Your task to perform on an android device: toggle airplane mode Image 0: 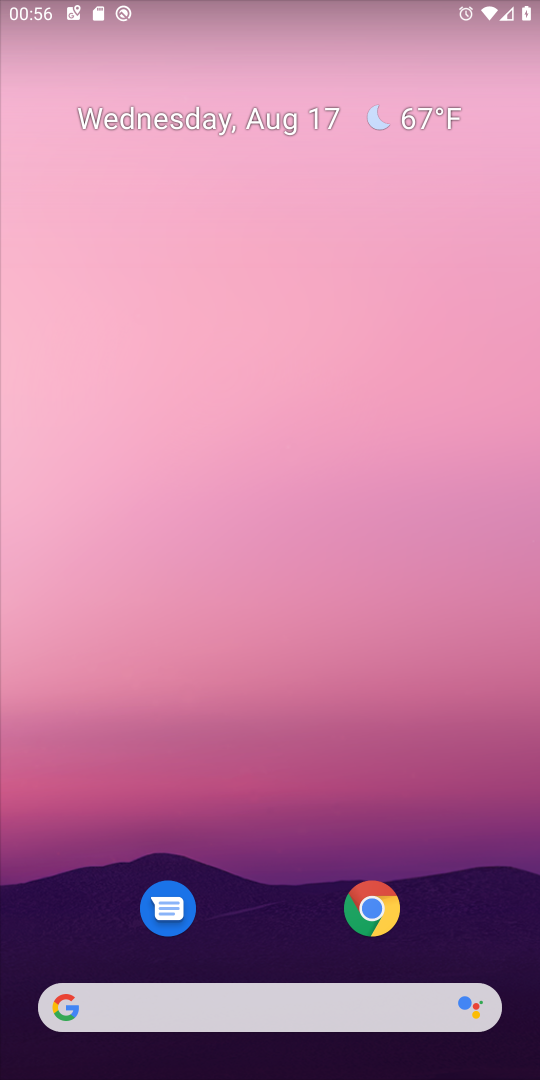
Step 0: drag from (261, 895) to (266, 299)
Your task to perform on an android device: toggle airplane mode Image 1: 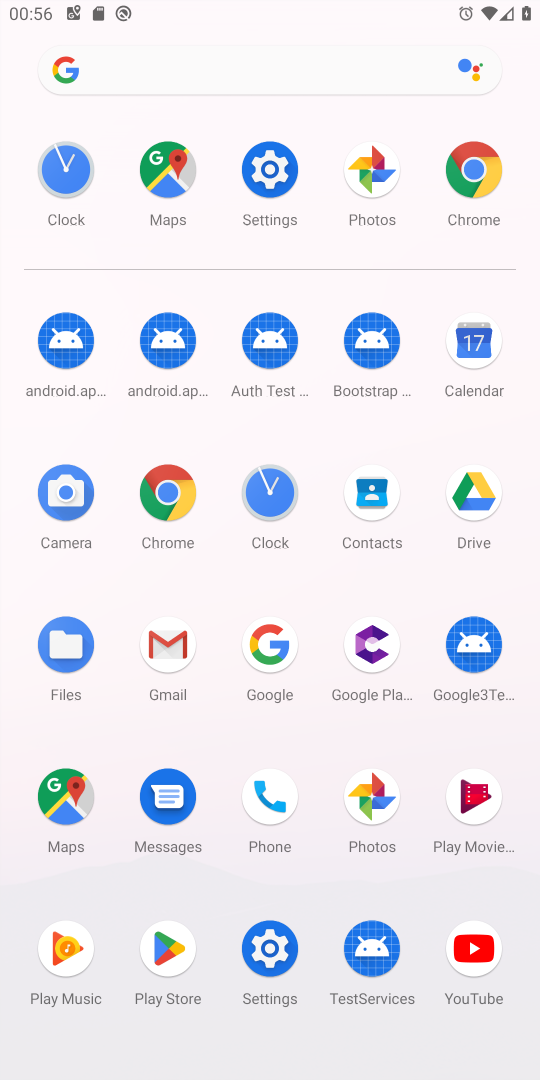
Step 1: click (254, 188)
Your task to perform on an android device: toggle airplane mode Image 2: 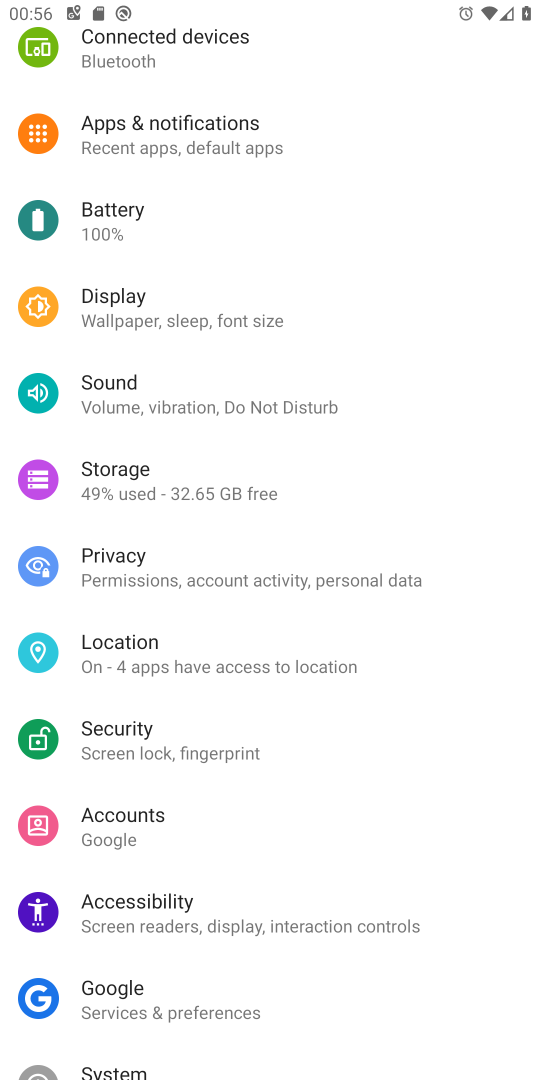
Step 2: drag from (258, 132) to (345, 752)
Your task to perform on an android device: toggle airplane mode Image 3: 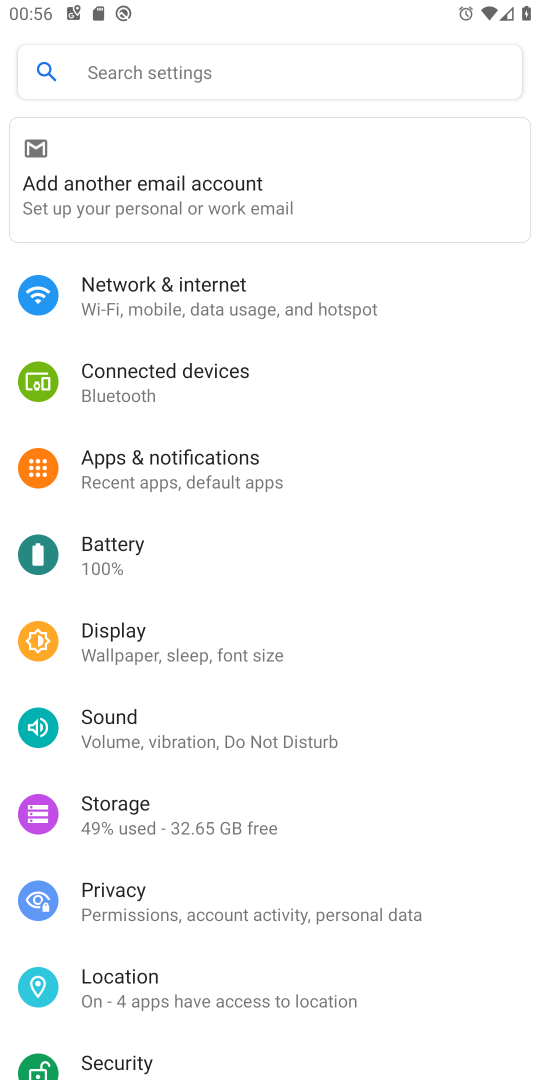
Step 3: click (176, 317)
Your task to perform on an android device: toggle airplane mode Image 4: 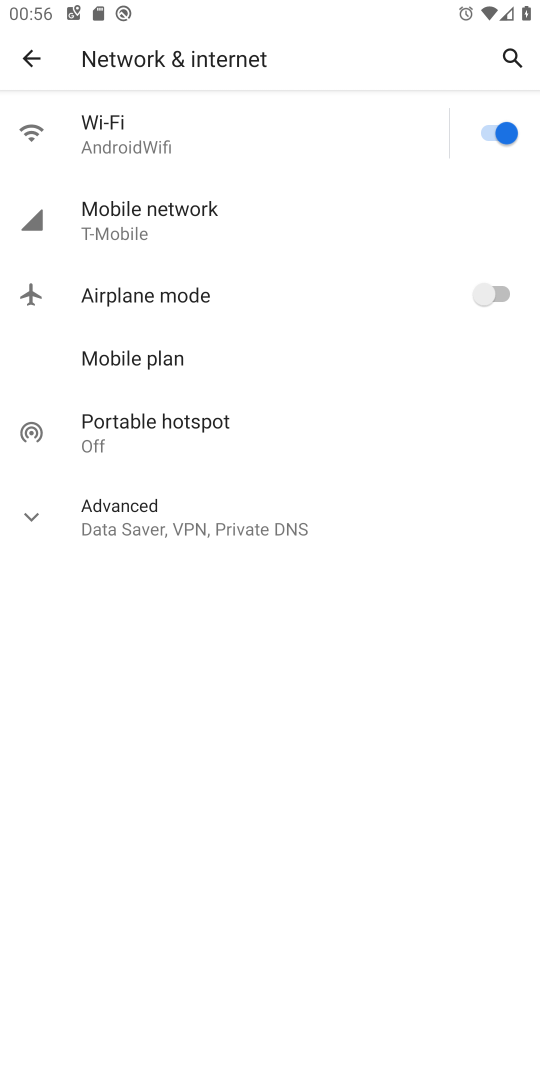
Step 4: click (493, 288)
Your task to perform on an android device: toggle airplane mode Image 5: 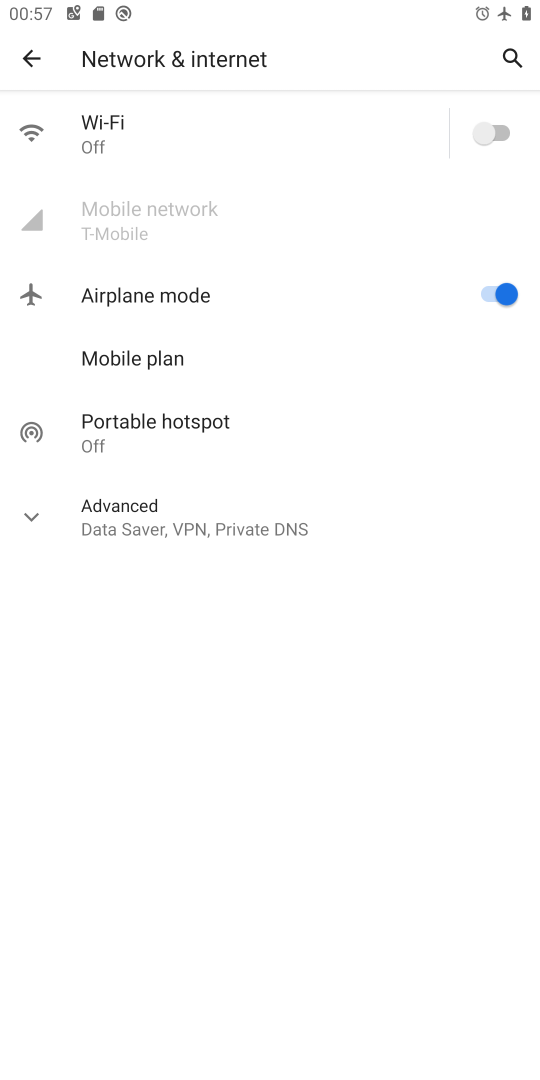
Step 5: task complete